Your task to perform on an android device: Go to internet settings Image 0: 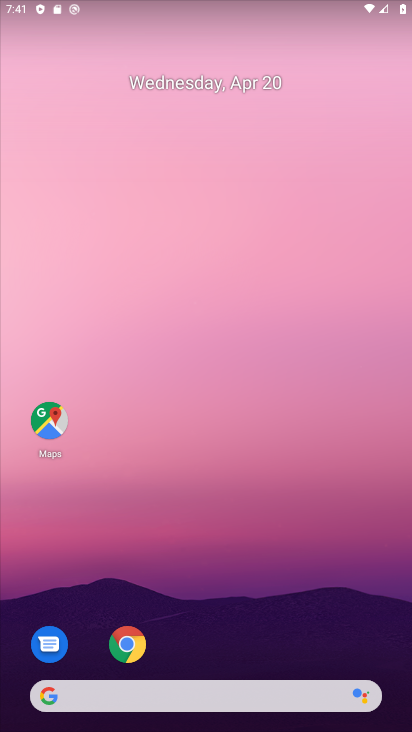
Step 0: drag from (326, 589) to (128, 39)
Your task to perform on an android device: Go to internet settings Image 1: 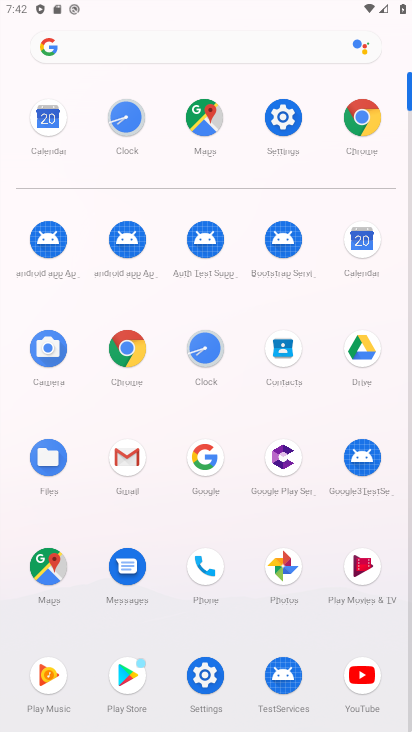
Step 1: click (210, 668)
Your task to perform on an android device: Go to internet settings Image 2: 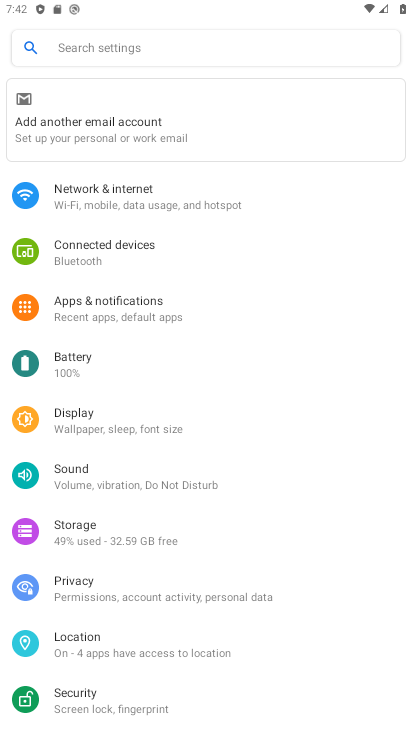
Step 2: click (177, 195)
Your task to perform on an android device: Go to internet settings Image 3: 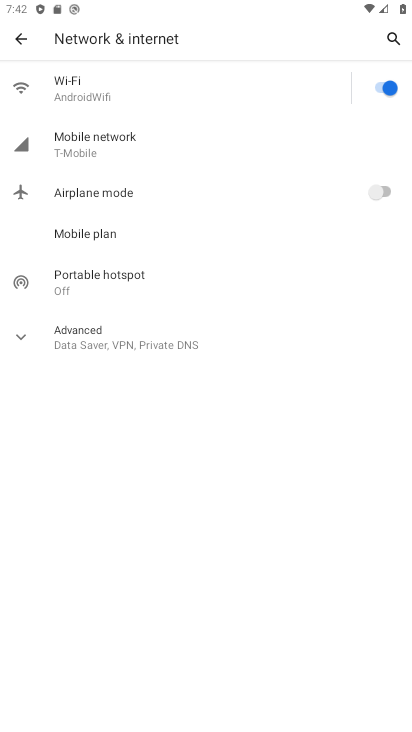
Step 3: task complete